Your task to perform on an android device: turn on data saver in the chrome app Image 0: 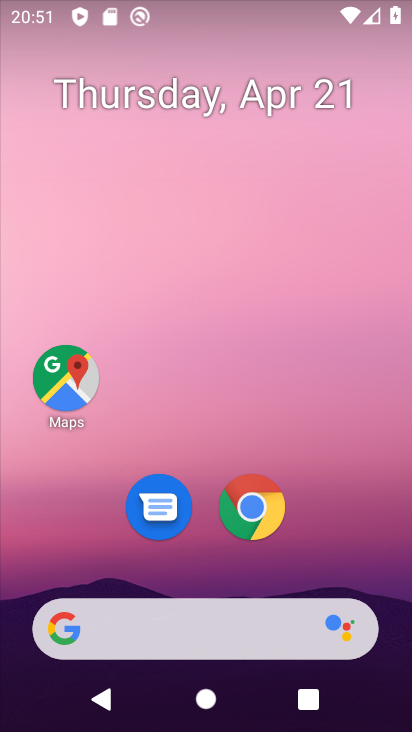
Step 0: click (244, 511)
Your task to perform on an android device: turn on data saver in the chrome app Image 1: 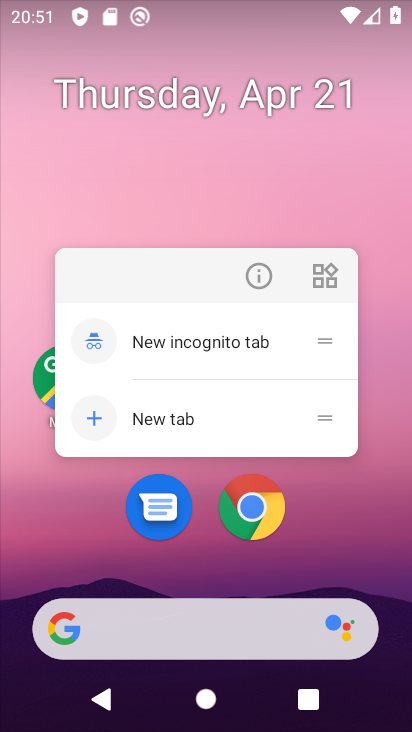
Step 1: click (246, 503)
Your task to perform on an android device: turn on data saver in the chrome app Image 2: 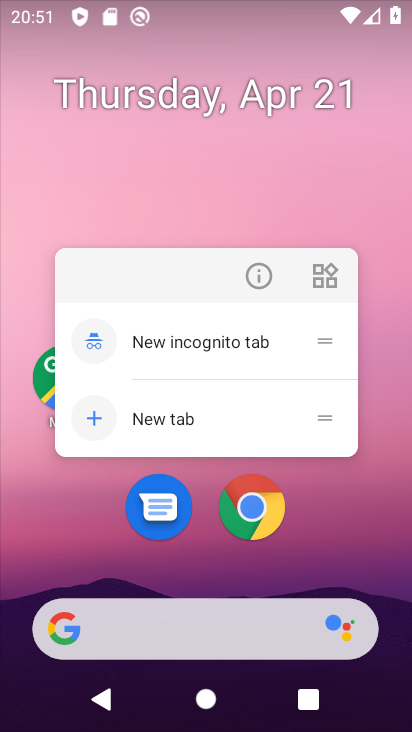
Step 2: click (246, 499)
Your task to perform on an android device: turn on data saver in the chrome app Image 3: 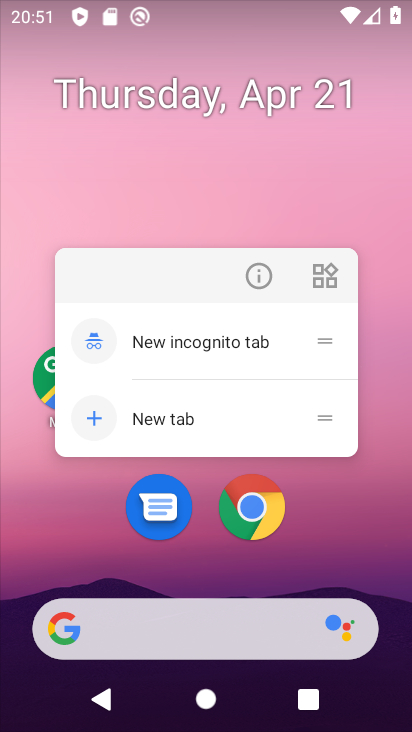
Step 3: click (253, 512)
Your task to perform on an android device: turn on data saver in the chrome app Image 4: 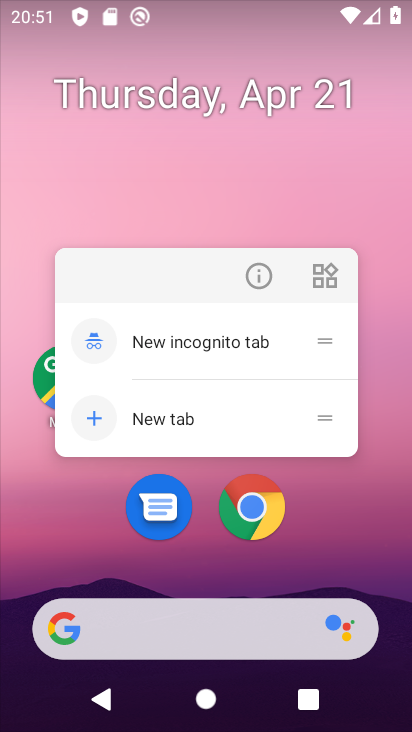
Step 4: click (253, 510)
Your task to perform on an android device: turn on data saver in the chrome app Image 5: 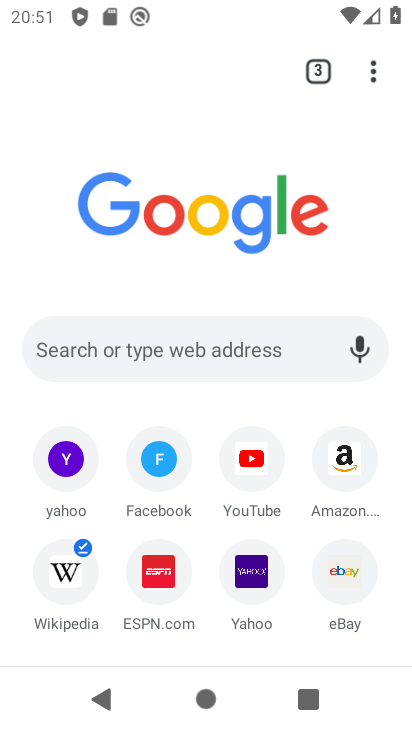
Step 5: click (376, 61)
Your task to perform on an android device: turn on data saver in the chrome app Image 6: 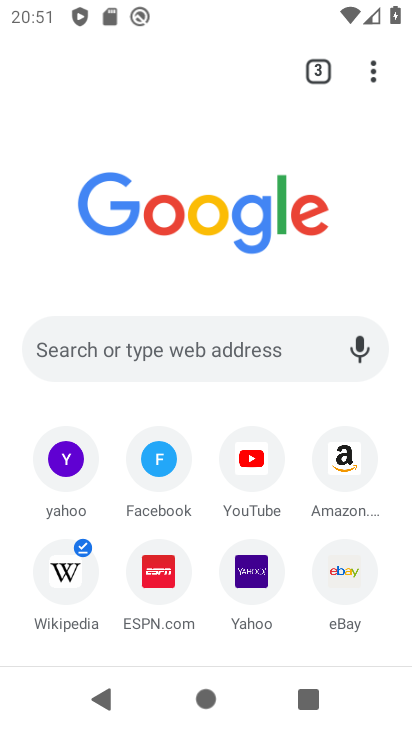
Step 6: drag from (373, 73) to (136, 497)
Your task to perform on an android device: turn on data saver in the chrome app Image 7: 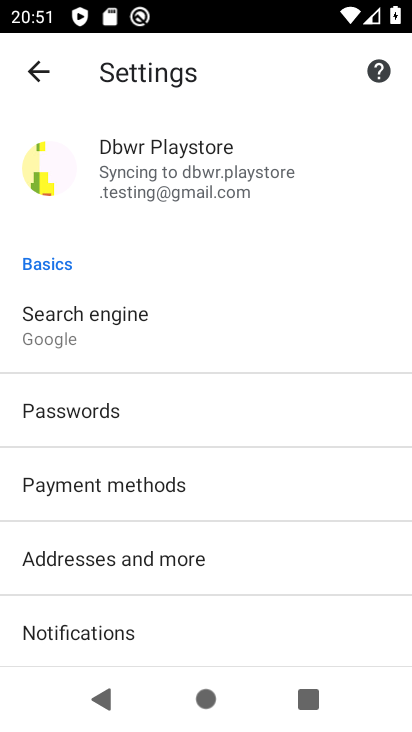
Step 7: drag from (127, 645) to (284, 95)
Your task to perform on an android device: turn on data saver in the chrome app Image 8: 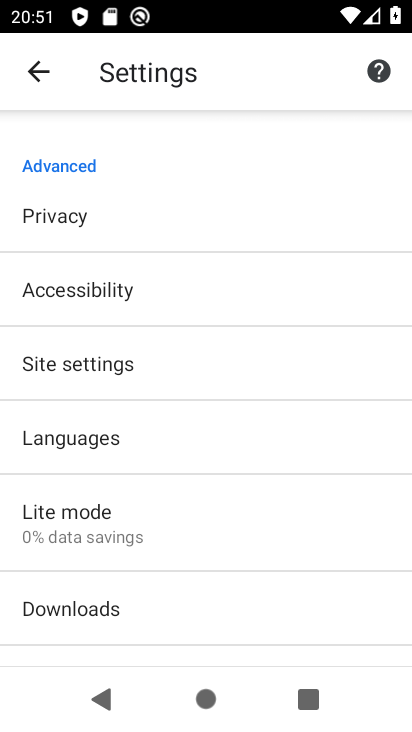
Step 8: click (119, 524)
Your task to perform on an android device: turn on data saver in the chrome app Image 9: 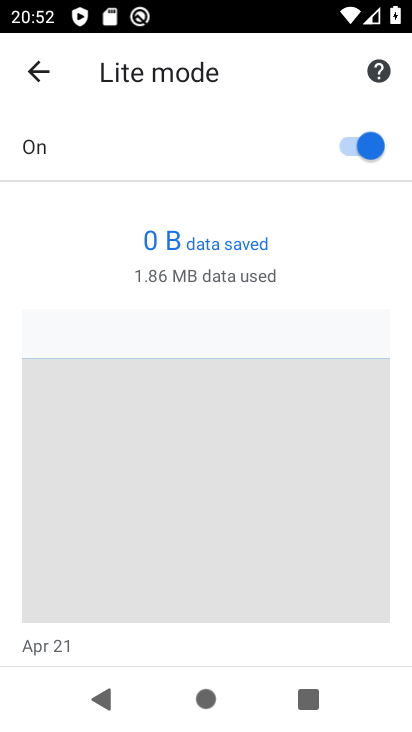
Step 9: task complete